Your task to perform on an android device: Search for pizza restaurants on Maps Image 0: 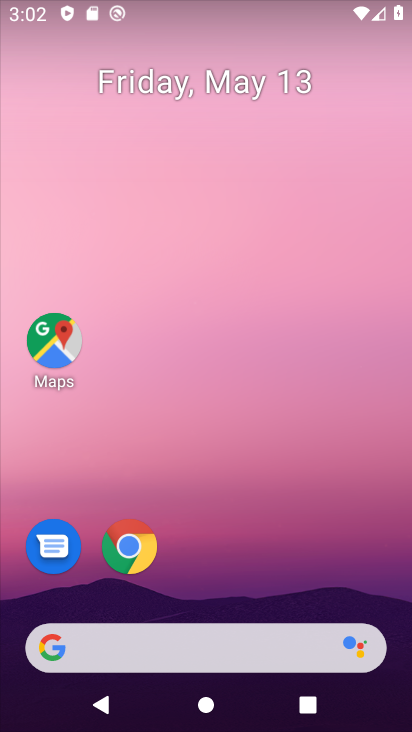
Step 0: click (55, 343)
Your task to perform on an android device: Search for pizza restaurants on Maps Image 1: 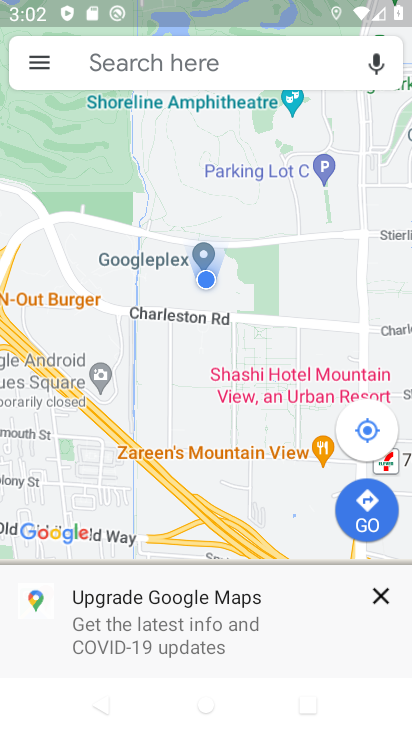
Step 1: click (236, 56)
Your task to perform on an android device: Search for pizza restaurants on Maps Image 2: 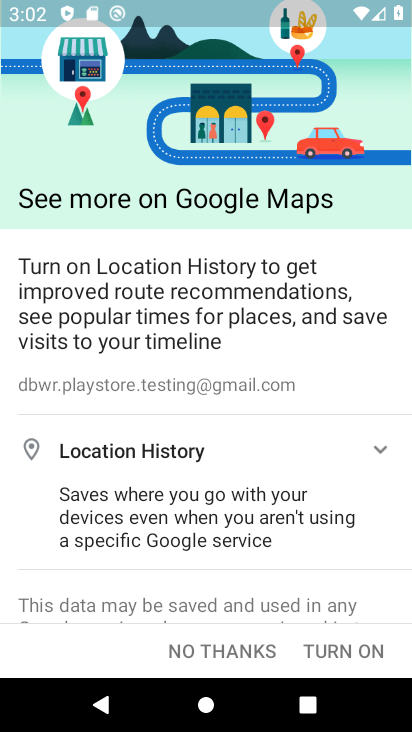
Step 2: click (338, 643)
Your task to perform on an android device: Search for pizza restaurants on Maps Image 3: 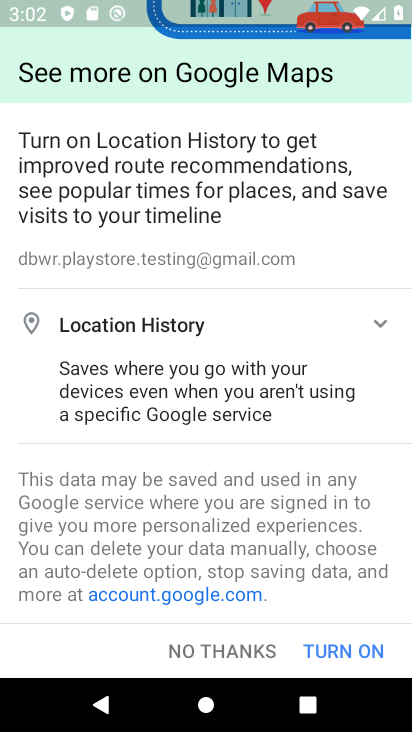
Step 3: click (334, 655)
Your task to perform on an android device: Search for pizza restaurants on Maps Image 4: 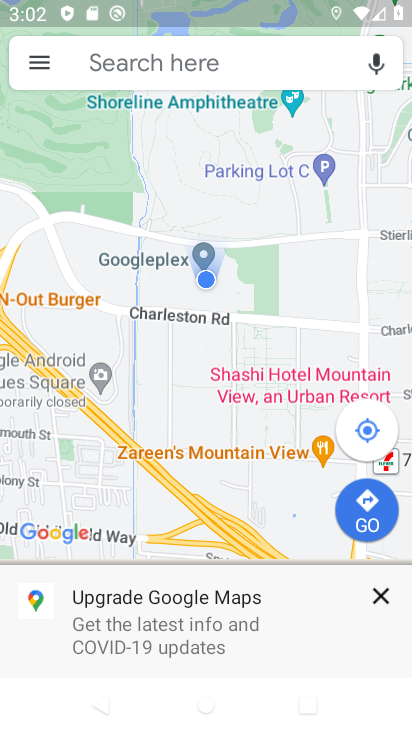
Step 4: click (141, 52)
Your task to perform on an android device: Search for pizza restaurants on Maps Image 5: 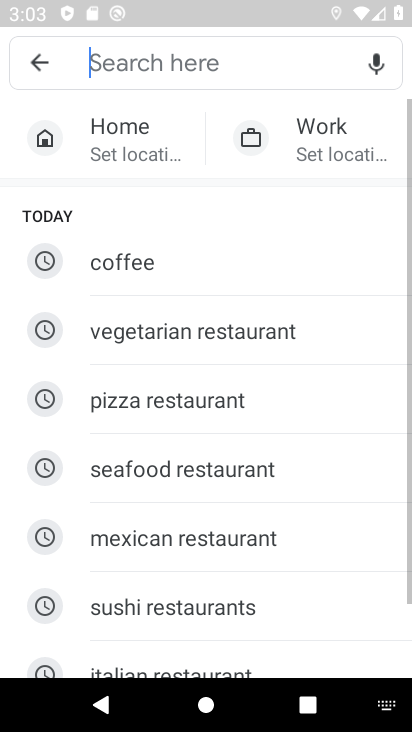
Step 5: click (272, 392)
Your task to perform on an android device: Search for pizza restaurants on Maps Image 6: 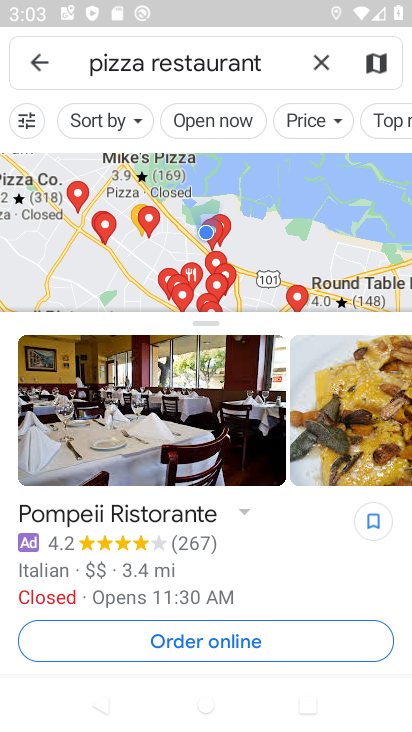
Step 6: task complete